Your task to perform on an android device: Go to eBay Image 0: 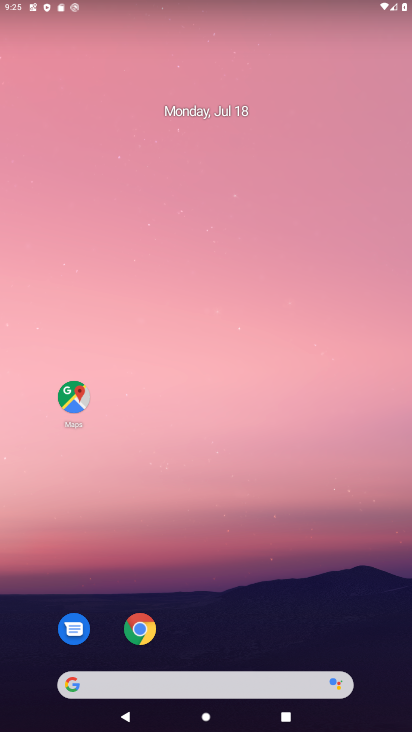
Step 0: drag from (310, 602) to (202, 26)
Your task to perform on an android device: Go to eBay Image 1: 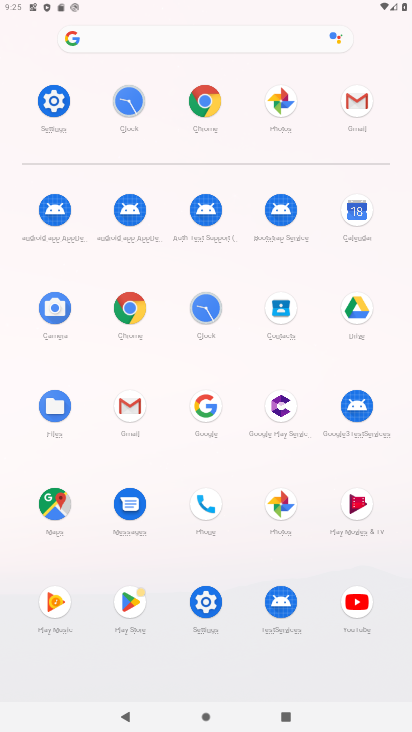
Step 1: click (208, 106)
Your task to perform on an android device: Go to eBay Image 2: 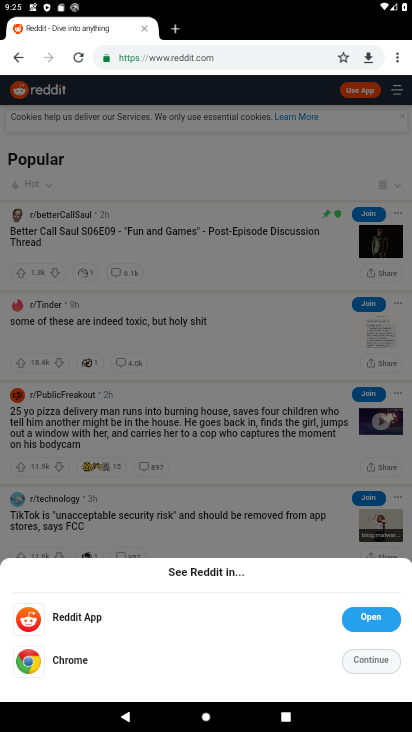
Step 2: click (228, 65)
Your task to perform on an android device: Go to eBay Image 3: 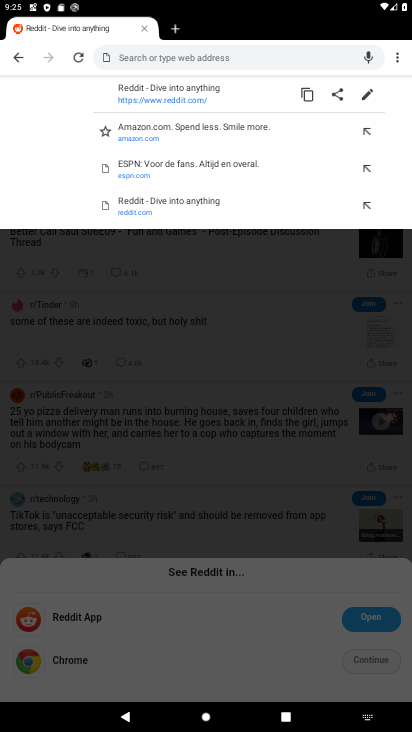
Step 3: type "ebay"
Your task to perform on an android device: Go to eBay Image 4: 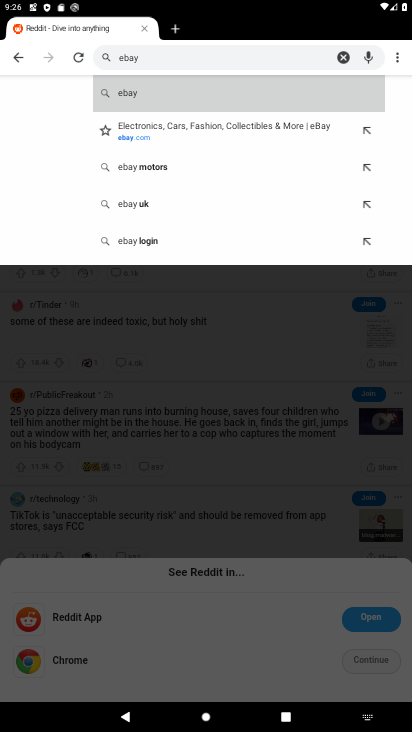
Step 4: click (134, 138)
Your task to perform on an android device: Go to eBay Image 5: 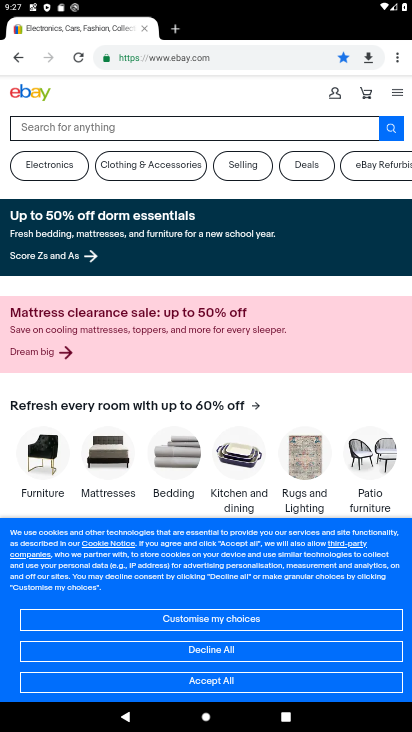
Step 5: task complete